Your task to perform on an android device: change notifications settings Image 0: 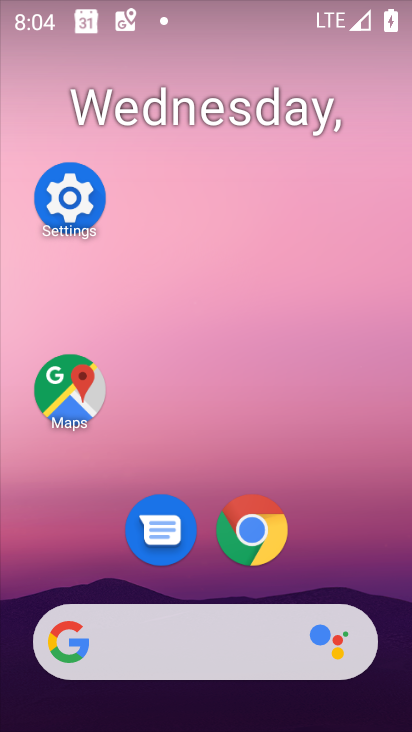
Step 0: drag from (315, 438) to (319, 167)
Your task to perform on an android device: change notifications settings Image 1: 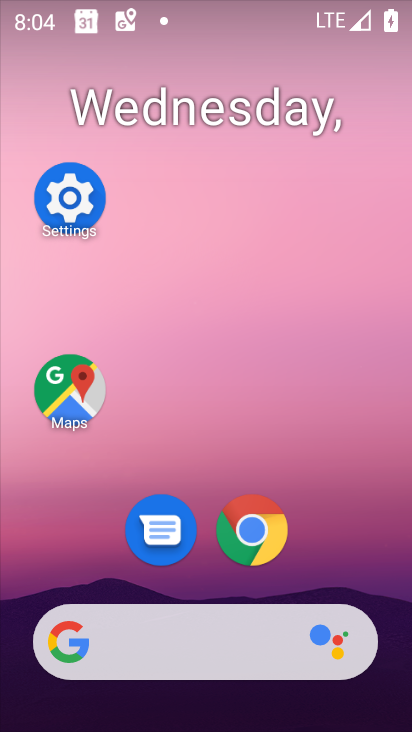
Step 1: drag from (360, 556) to (363, 47)
Your task to perform on an android device: change notifications settings Image 2: 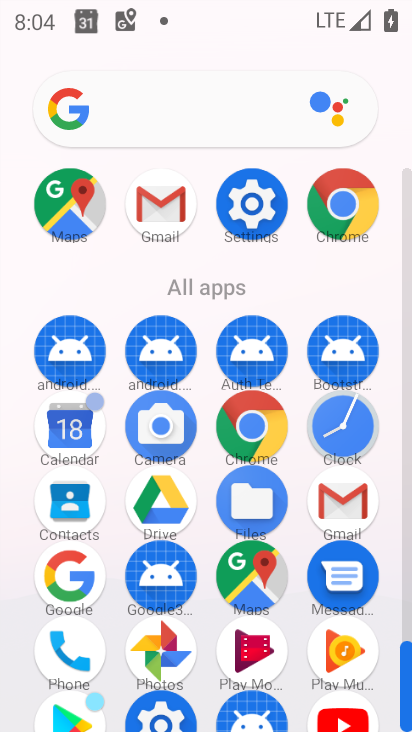
Step 2: click (270, 207)
Your task to perform on an android device: change notifications settings Image 3: 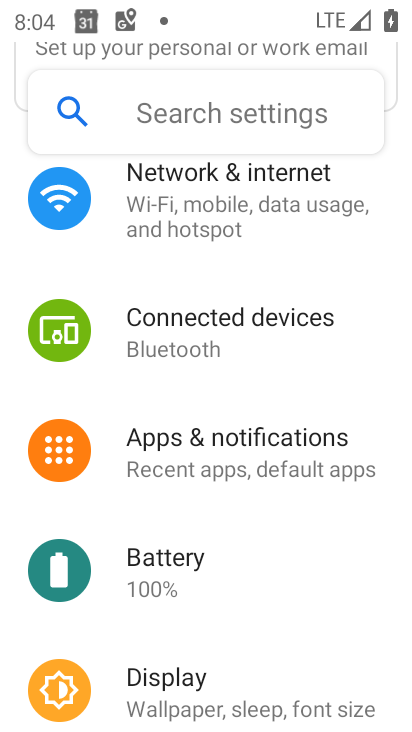
Step 3: click (227, 425)
Your task to perform on an android device: change notifications settings Image 4: 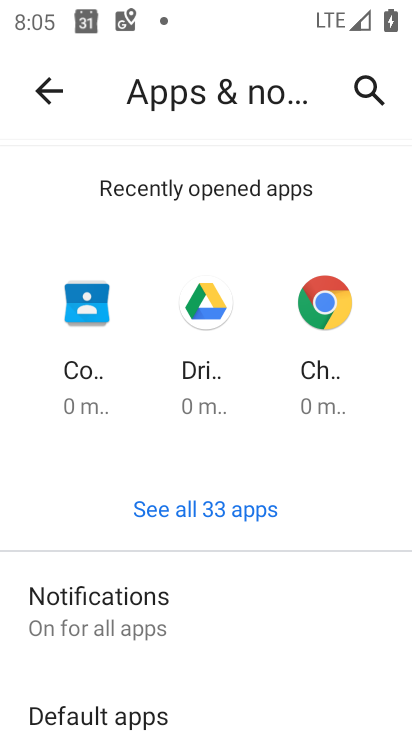
Step 4: task complete